Your task to perform on an android device: change your default location settings in chrome Image 0: 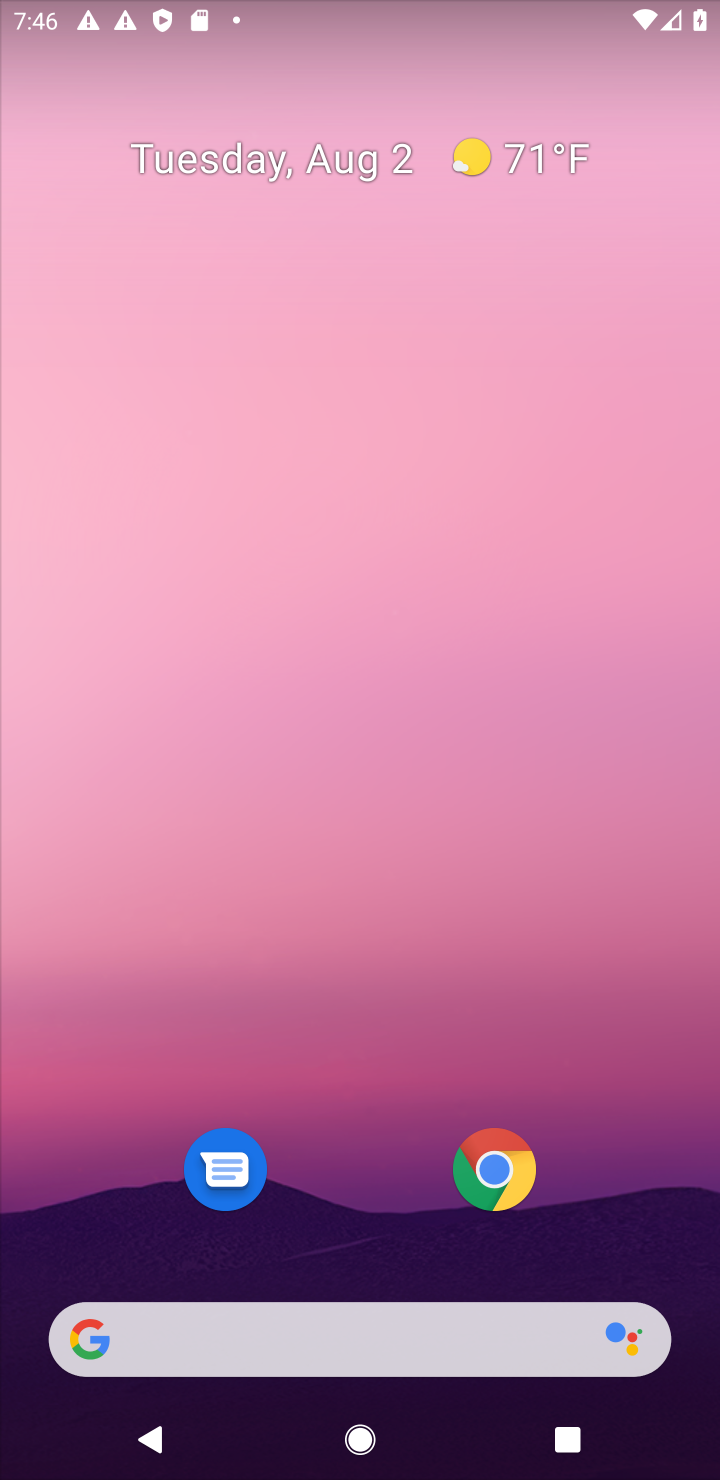
Step 0: click (502, 1164)
Your task to perform on an android device: change your default location settings in chrome Image 1: 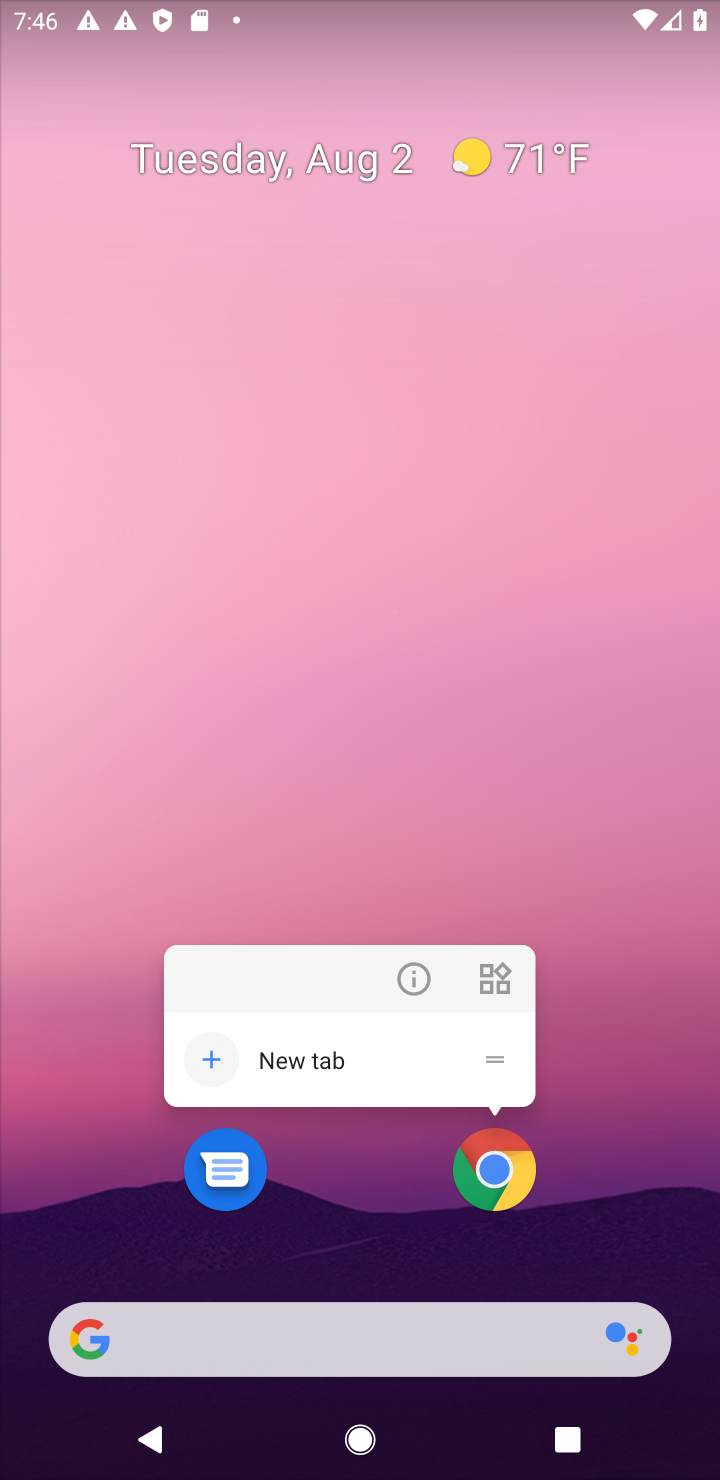
Step 1: click (502, 1164)
Your task to perform on an android device: change your default location settings in chrome Image 2: 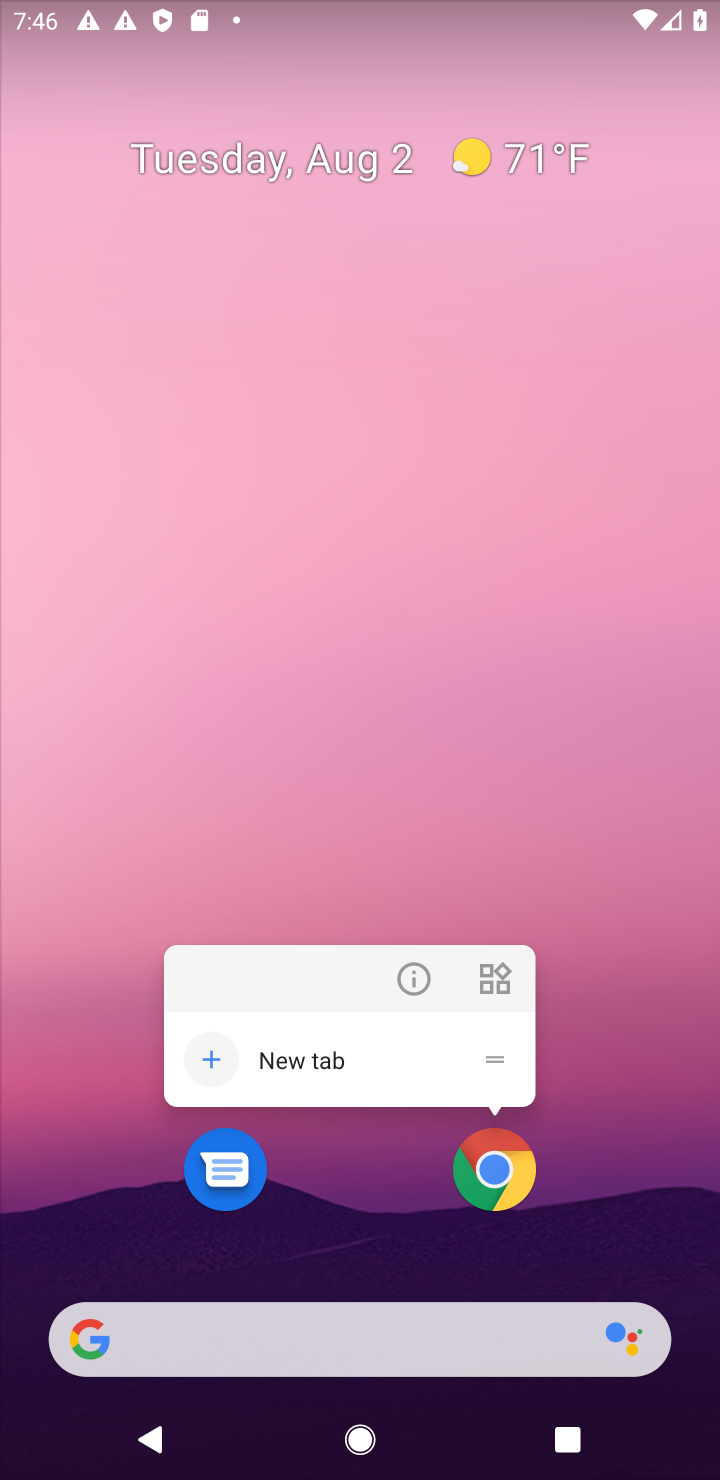
Step 2: click (502, 1164)
Your task to perform on an android device: change your default location settings in chrome Image 3: 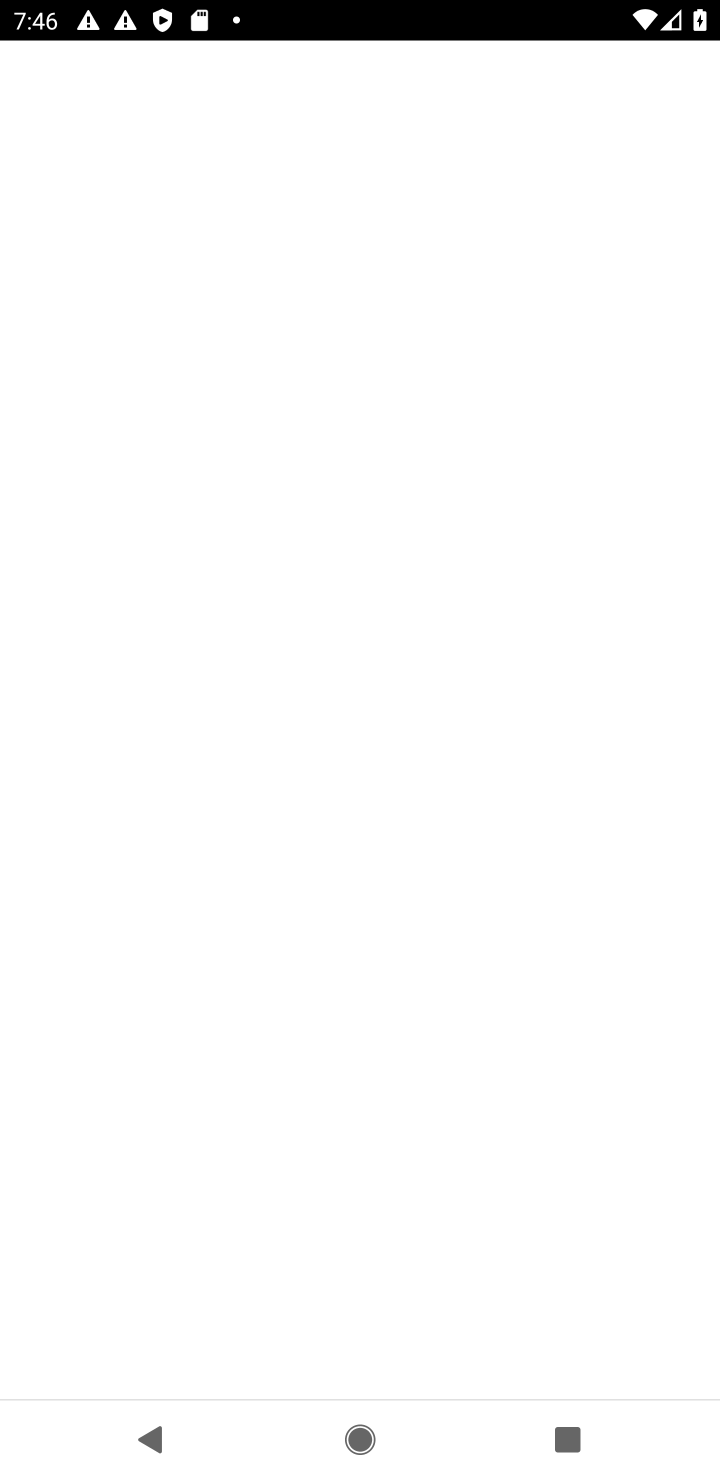
Step 3: click (502, 1164)
Your task to perform on an android device: change your default location settings in chrome Image 4: 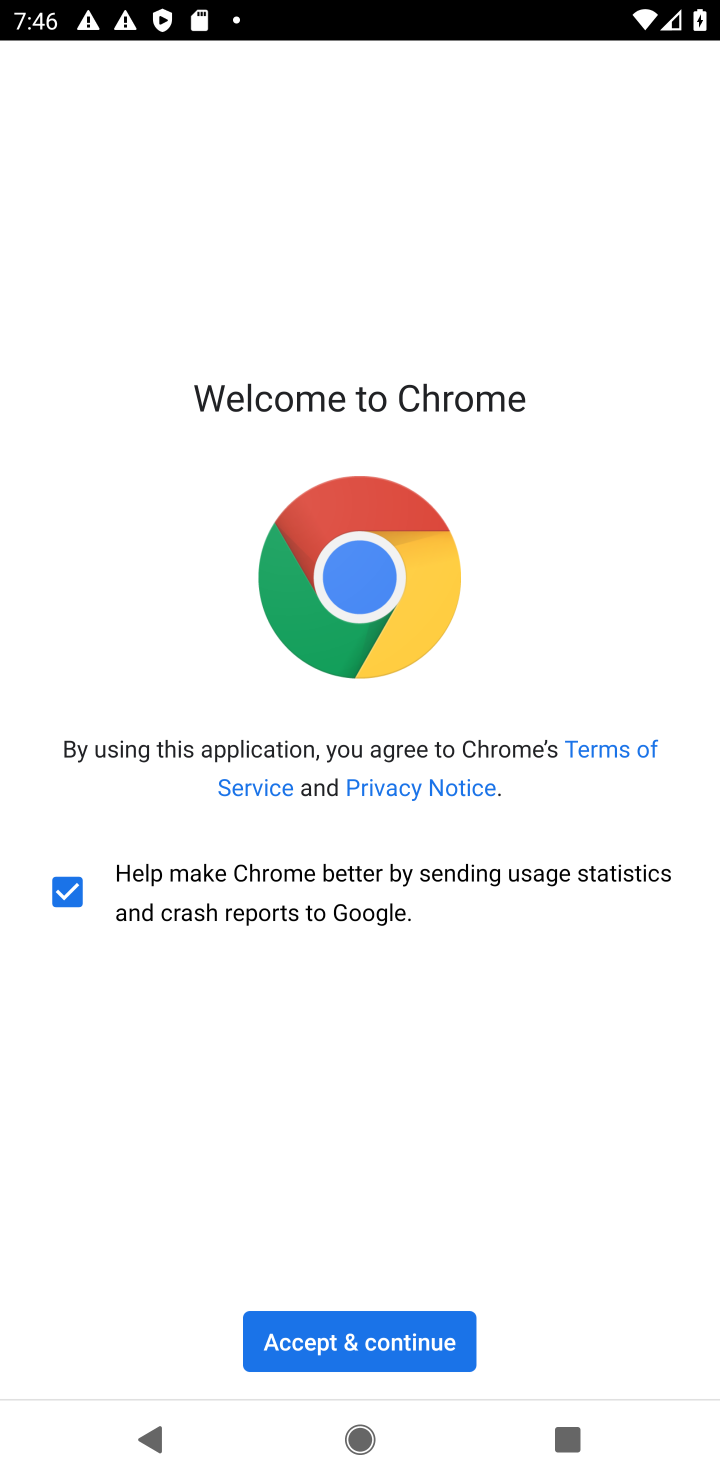
Step 4: click (435, 1348)
Your task to perform on an android device: change your default location settings in chrome Image 5: 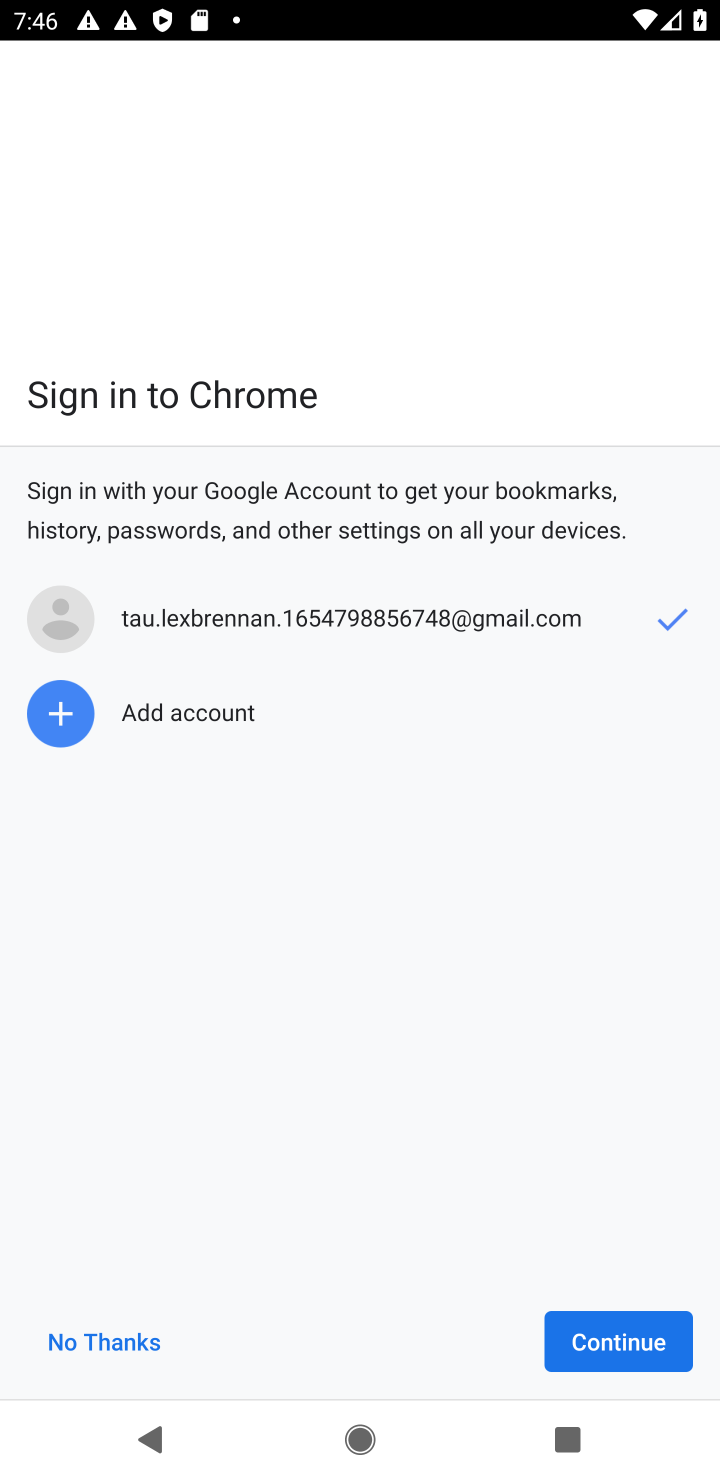
Step 5: click (574, 1333)
Your task to perform on an android device: change your default location settings in chrome Image 6: 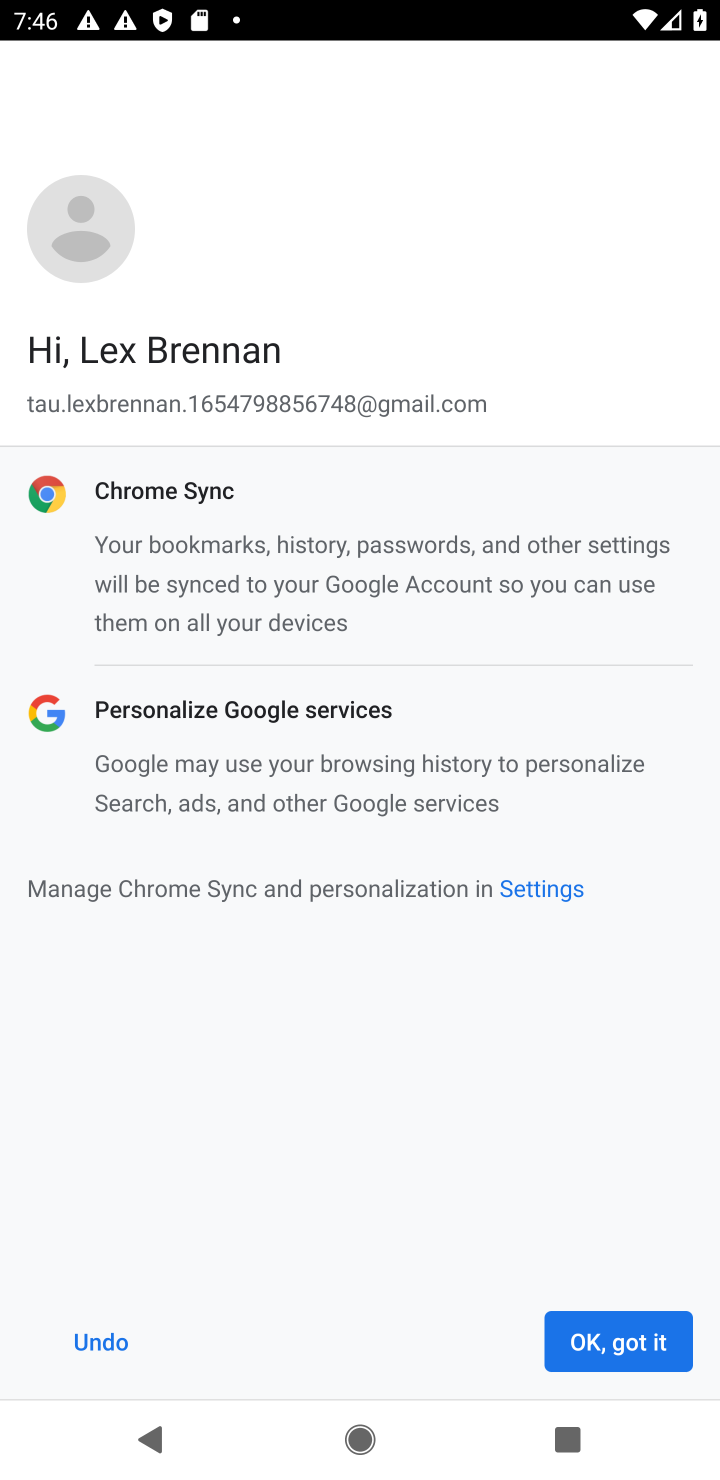
Step 6: click (574, 1333)
Your task to perform on an android device: change your default location settings in chrome Image 7: 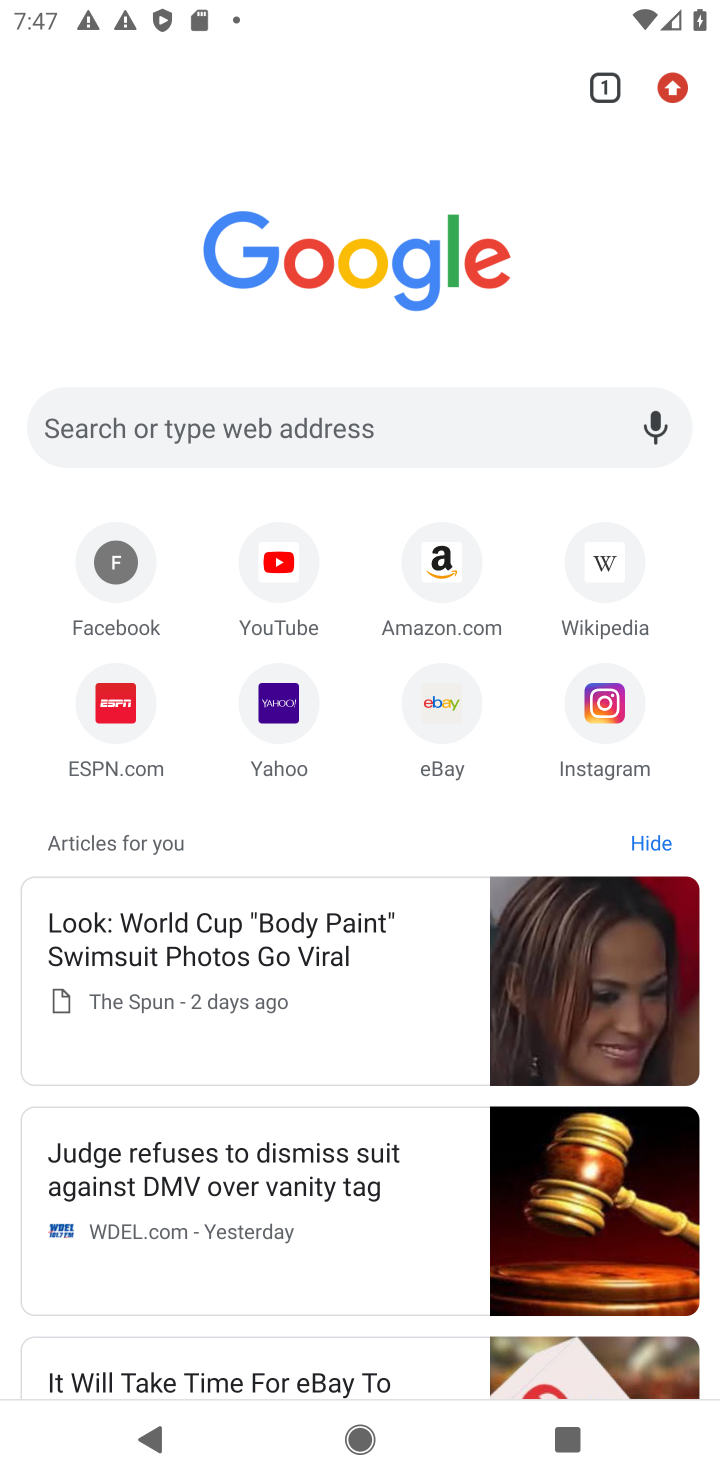
Step 7: click (680, 84)
Your task to perform on an android device: change your default location settings in chrome Image 8: 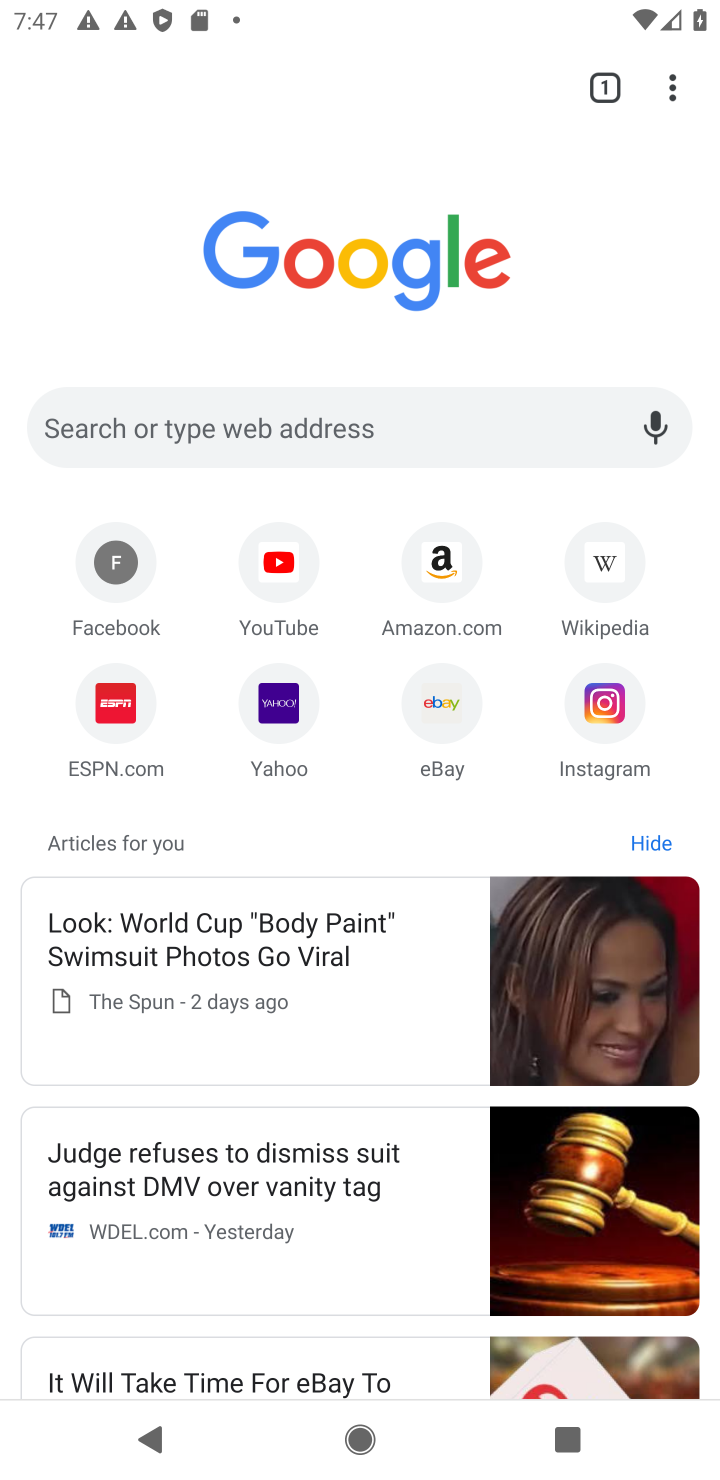
Step 8: click (668, 87)
Your task to perform on an android device: change your default location settings in chrome Image 9: 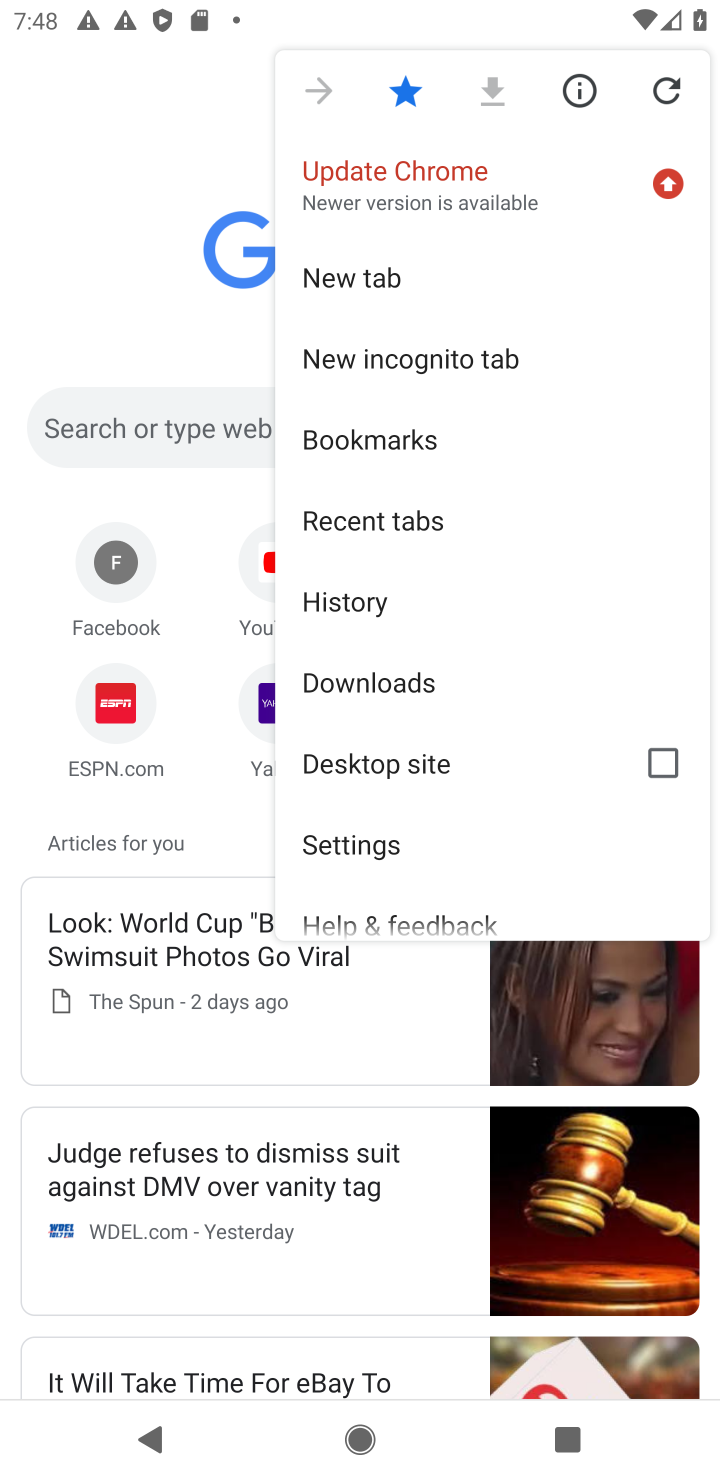
Step 9: click (386, 835)
Your task to perform on an android device: change your default location settings in chrome Image 10: 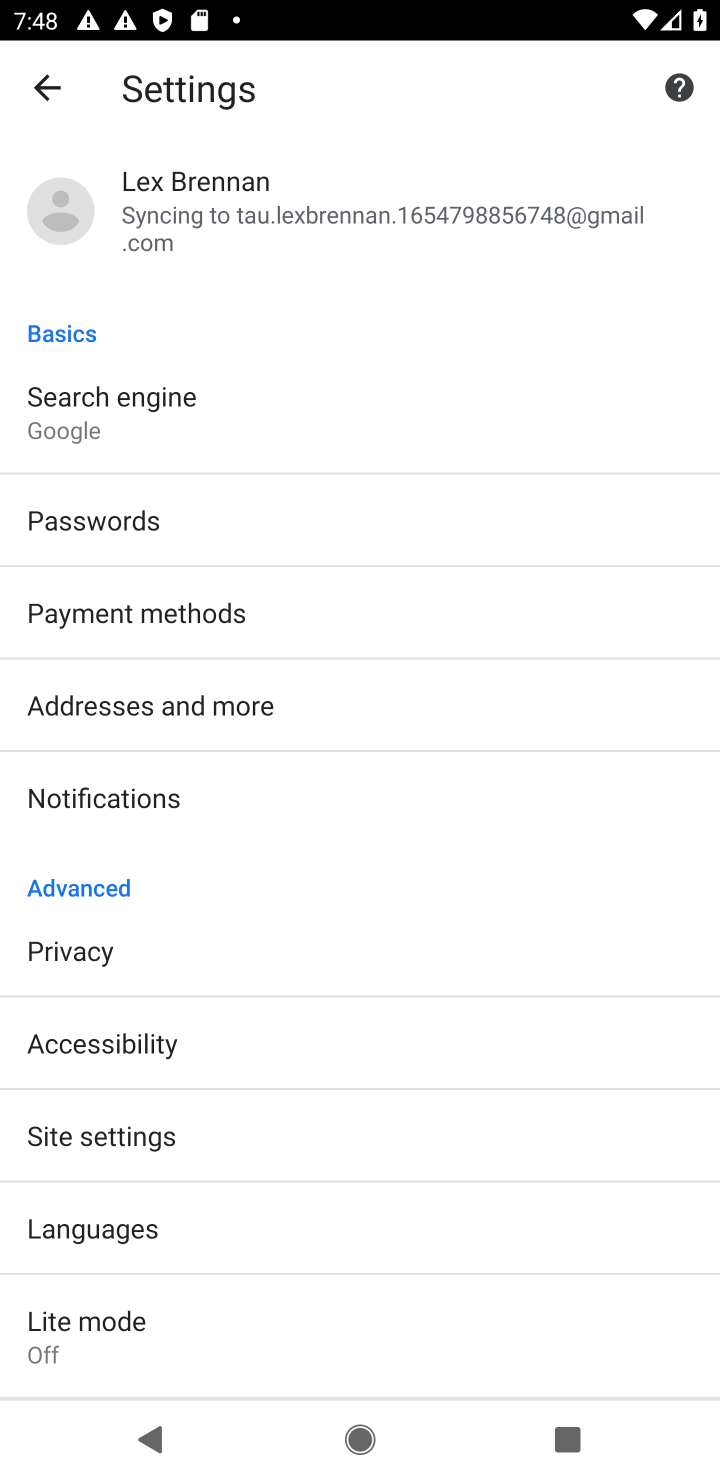
Step 10: click (145, 1132)
Your task to perform on an android device: change your default location settings in chrome Image 11: 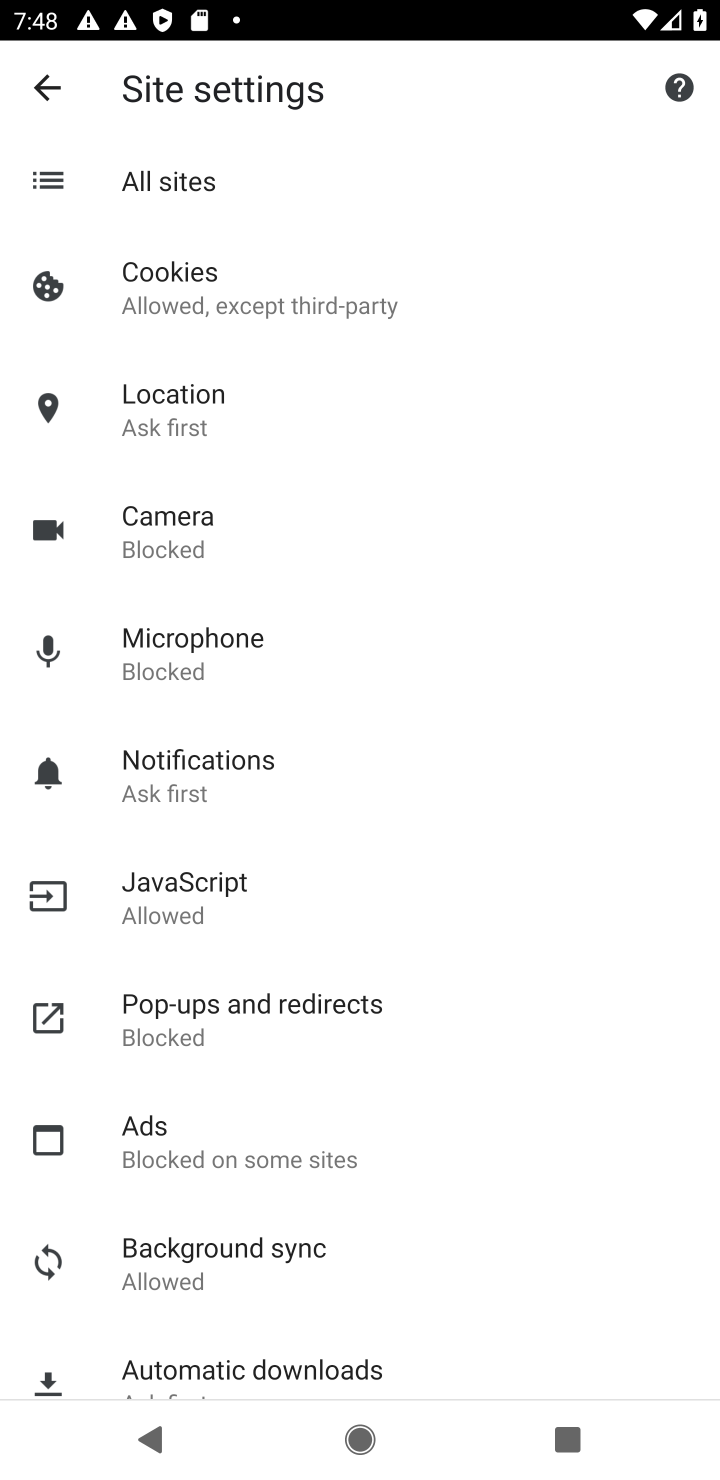
Step 11: click (189, 409)
Your task to perform on an android device: change your default location settings in chrome Image 12: 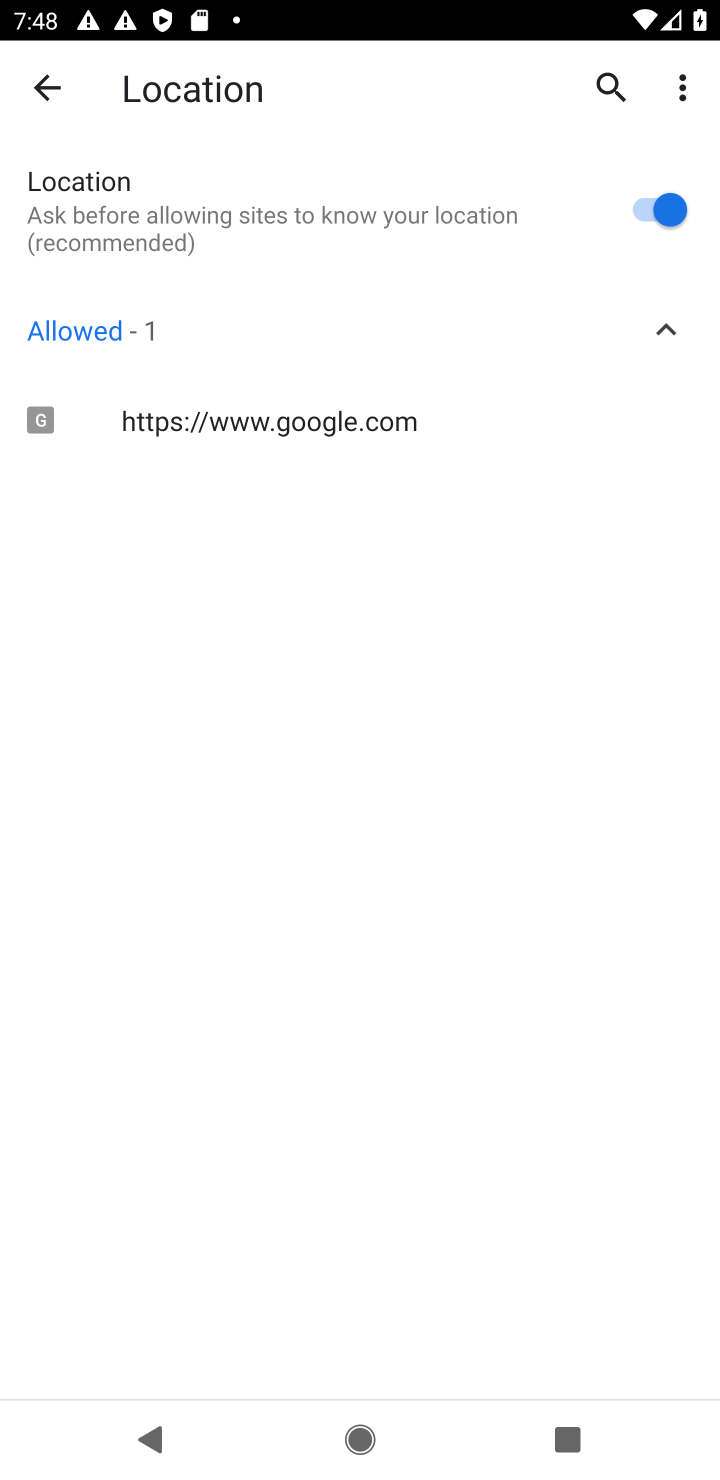
Step 12: click (650, 205)
Your task to perform on an android device: change your default location settings in chrome Image 13: 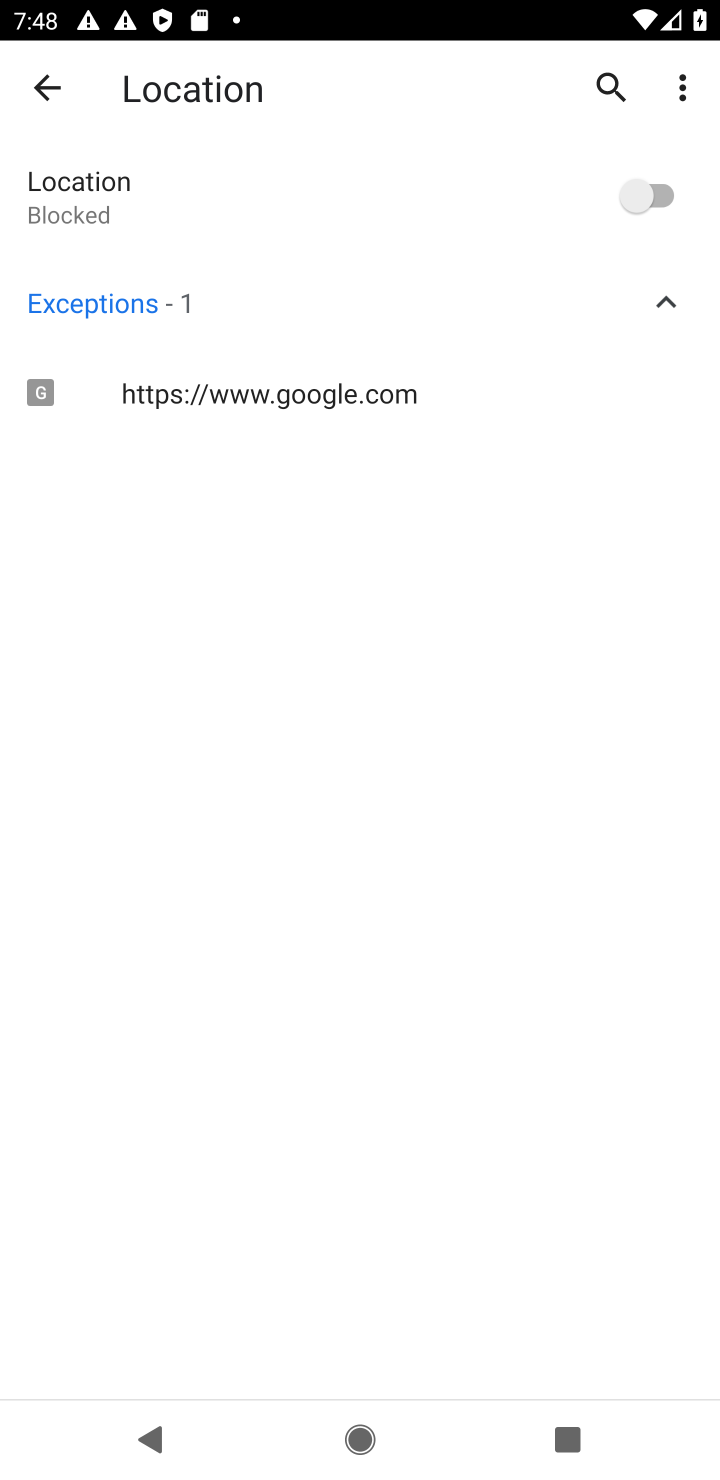
Step 13: task complete